Your task to perform on an android device: Go to internet settings Image 0: 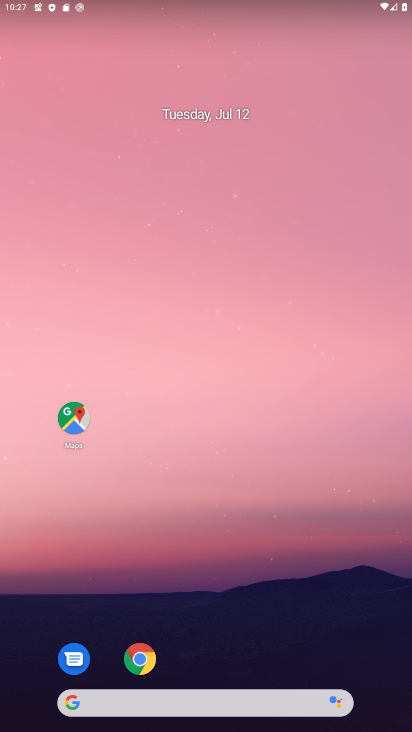
Step 0: drag from (347, 535) to (300, 244)
Your task to perform on an android device: Go to internet settings Image 1: 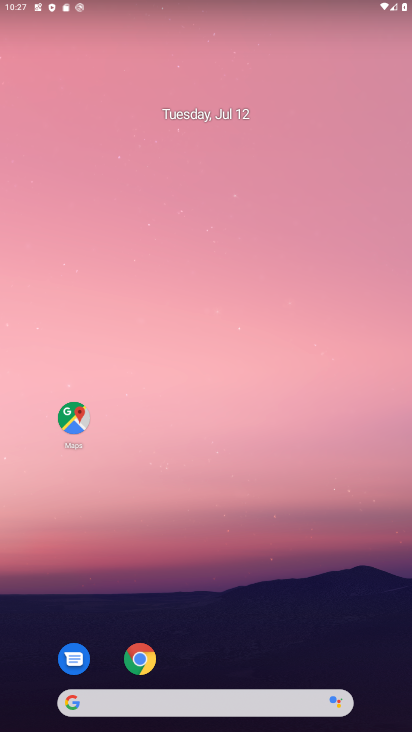
Step 1: drag from (386, 670) to (294, 1)
Your task to perform on an android device: Go to internet settings Image 2: 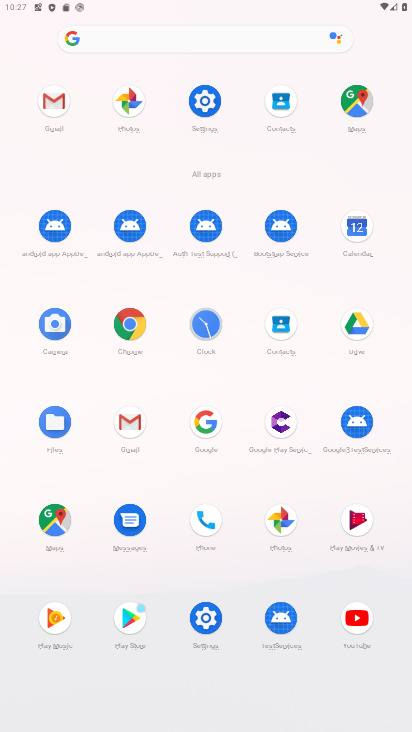
Step 2: click (208, 118)
Your task to perform on an android device: Go to internet settings Image 3: 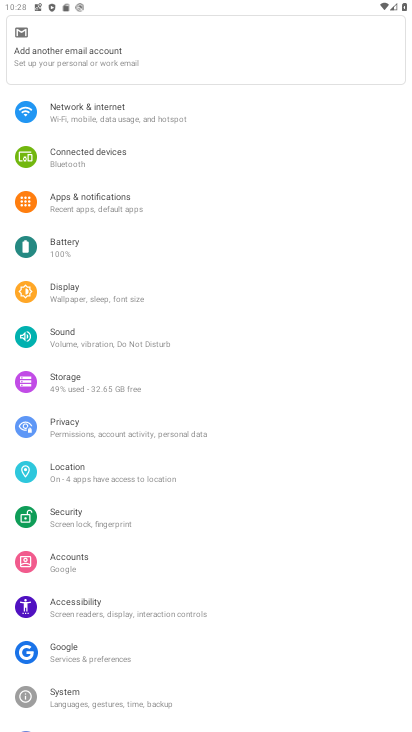
Step 3: click (98, 100)
Your task to perform on an android device: Go to internet settings Image 4: 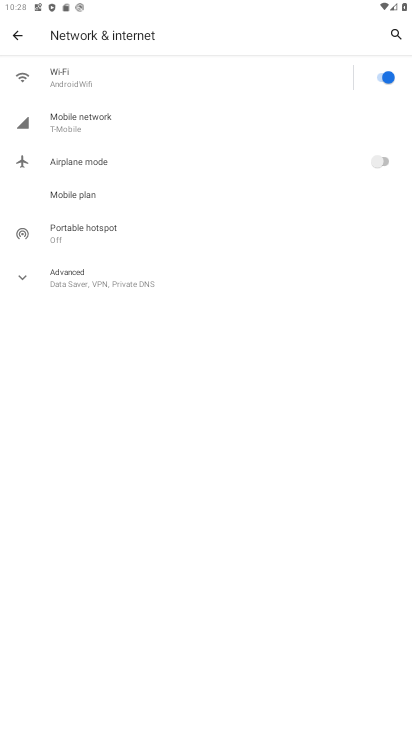
Step 4: click (86, 120)
Your task to perform on an android device: Go to internet settings Image 5: 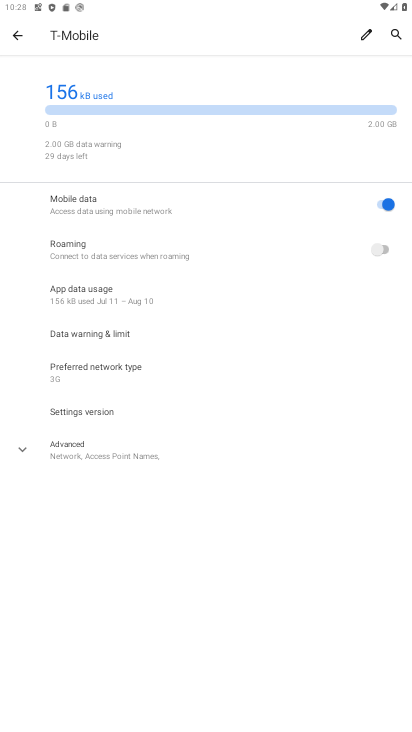
Step 5: click (26, 451)
Your task to perform on an android device: Go to internet settings Image 6: 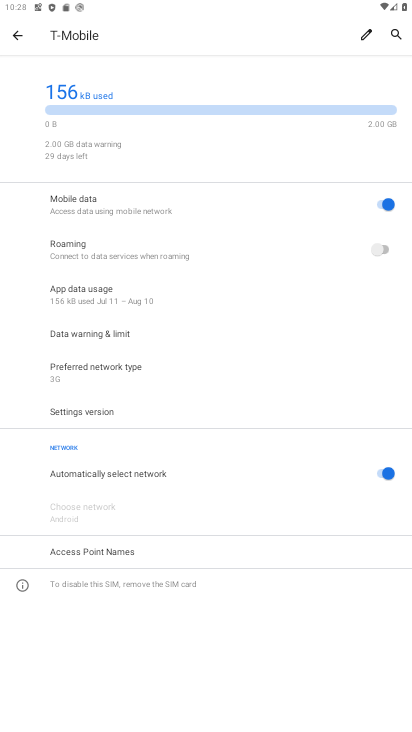
Step 6: click (19, 29)
Your task to perform on an android device: Go to internet settings Image 7: 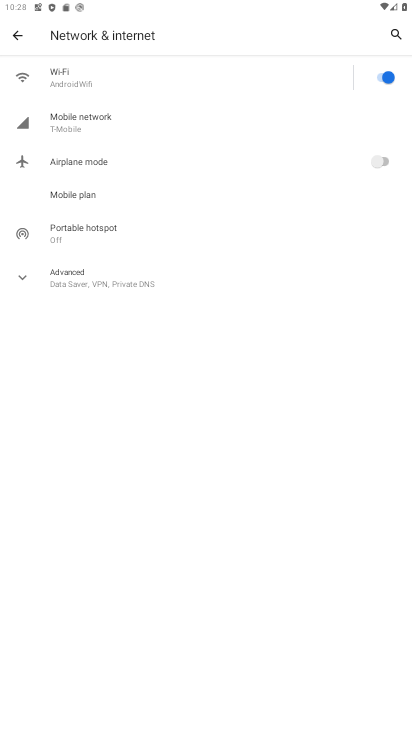
Step 7: click (19, 283)
Your task to perform on an android device: Go to internet settings Image 8: 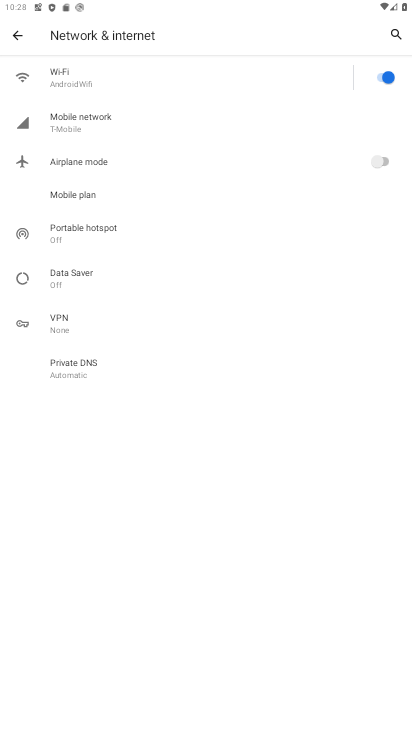
Step 8: task complete